Your task to perform on an android device: Open calendar and show me the second week of next month Image 0: 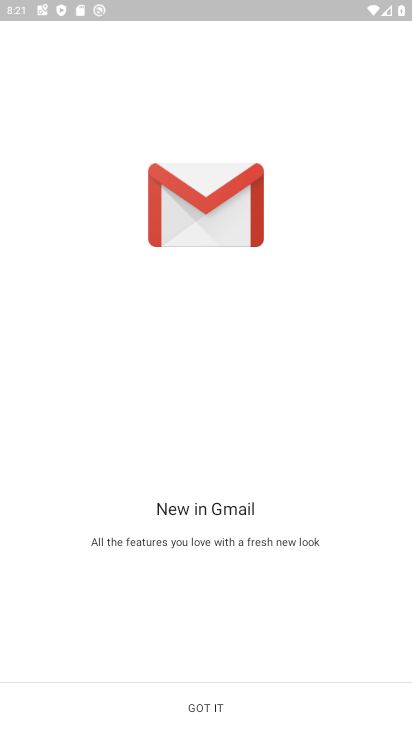
Step 0: press home button
Your task to perform on an android device: Open calendar and show me the second week of next month Image 1: 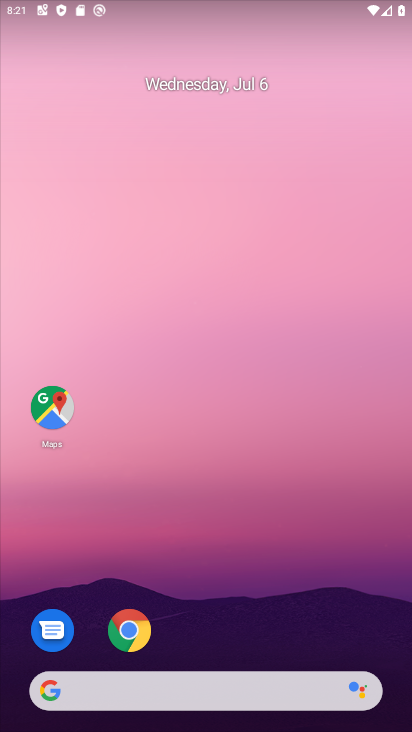
Step 1: drag from (388, 682) to (353, 203)
Your task to perform on an android device: Open calendar and show me the second week of next month Image 2: 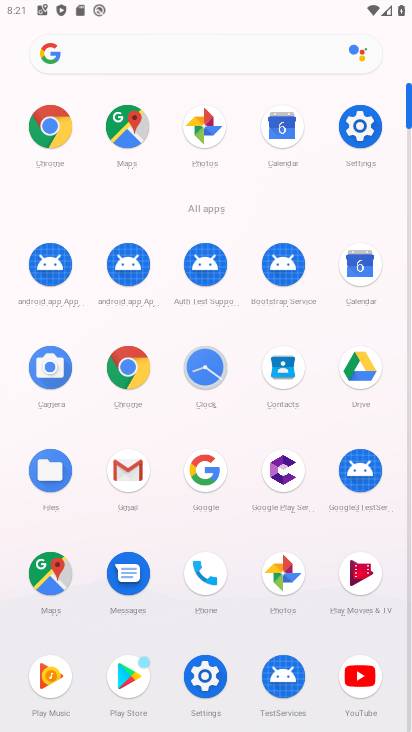
Step 2: click (344, 264)
Your task to perform on an android device: Open calendar and show me the second week of next month Image 3: 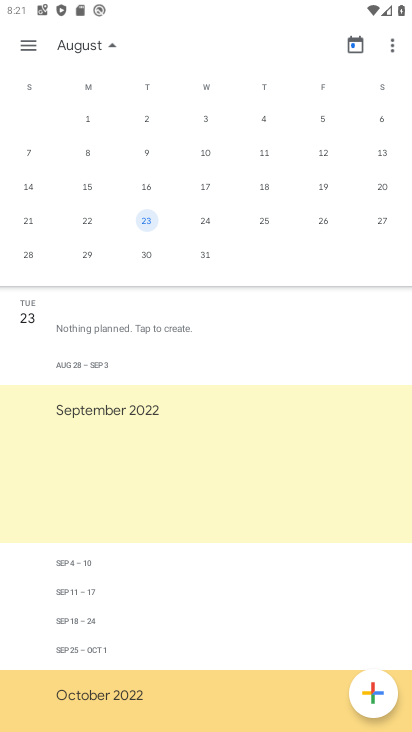
Step 3: click (258, 149)
Your task to perform on an android device: Open calendar and show me the second week of next month Image 4: 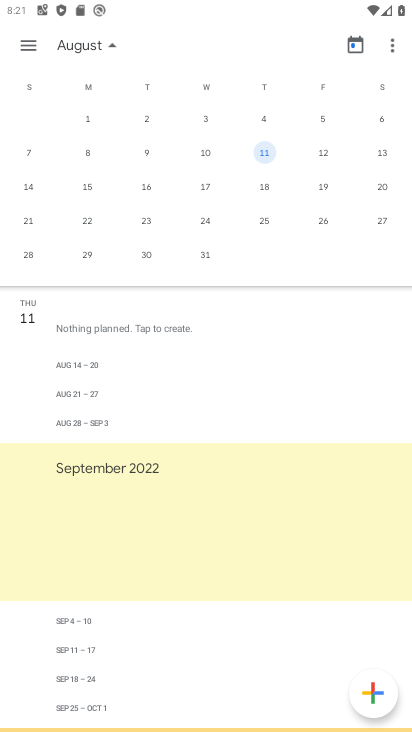
Step 4: task complete